Your task to perform on an android device: Check the news Image 0: 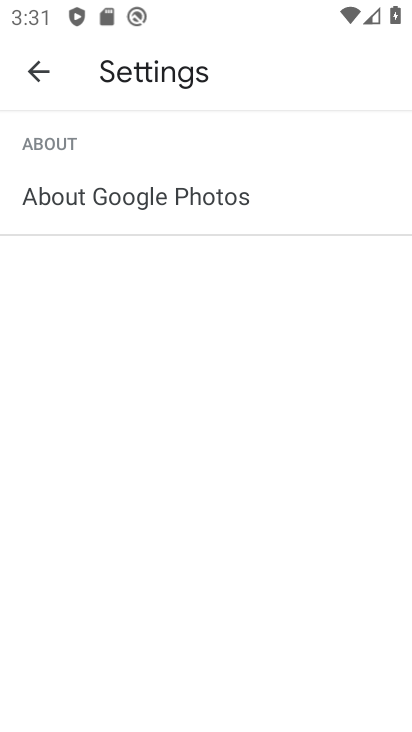
Step 0: press home button
Your task to perform on an android device: Check the news Image 1: 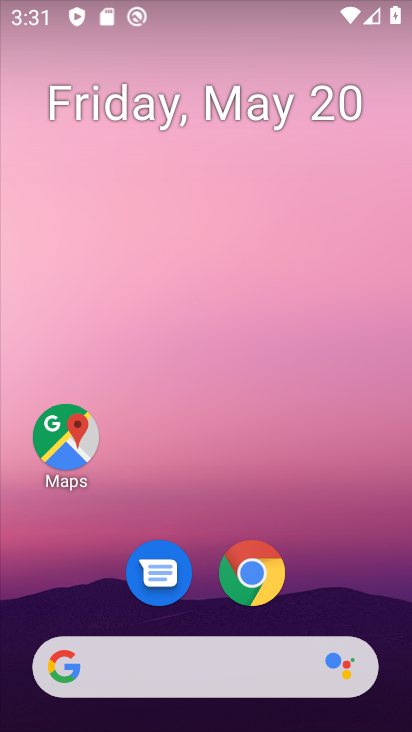
Step 1: drag from (349, 517) to (328, 173)
Your task to perform on an android device: Check the news Image 2: 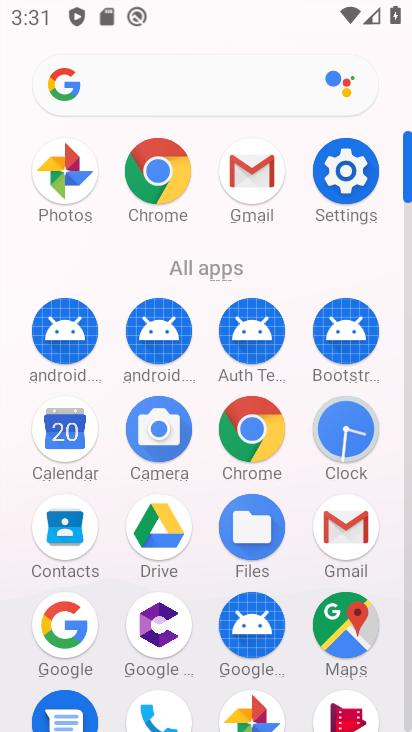
Step 2: click (169, 182)
Your task to perform on an android device: Check the news Image 3: 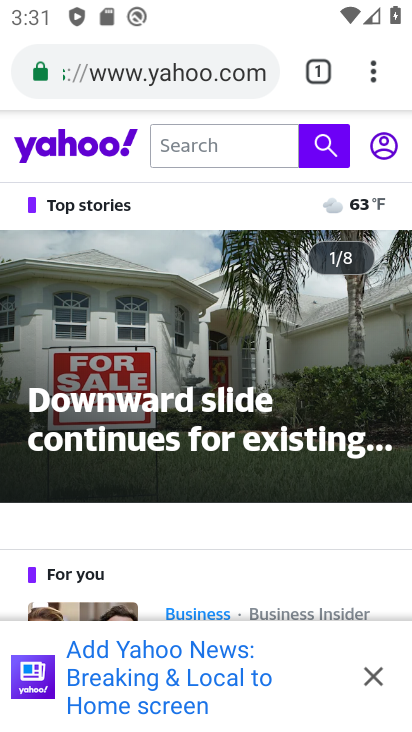
Step 3: click (238, 85)
Your task to perform on an android device: Check the news Image 4: 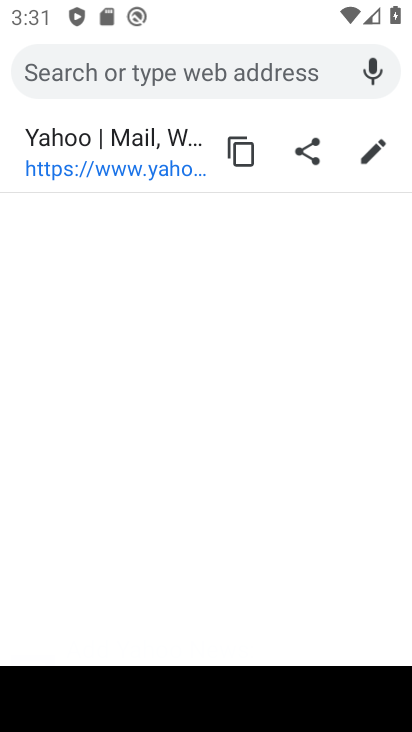
Step 4: type "check the news"
Your task to perform on an android device: Check the news Image 5: 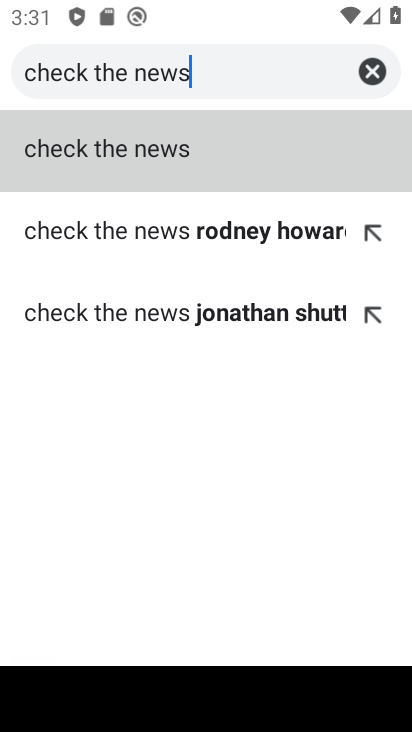
Step 5: click (142, 123)
Your task to perform on an android device: Check the news Image 6: 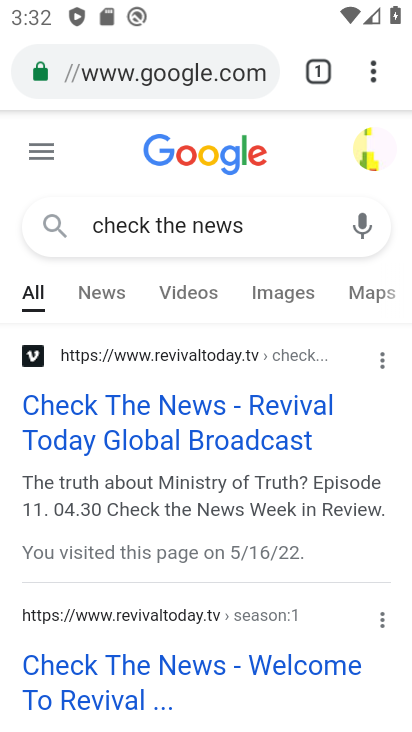
Step 6: task complete